Your task to perform on an android device: What's the weather going to be this weekend? Image 0: 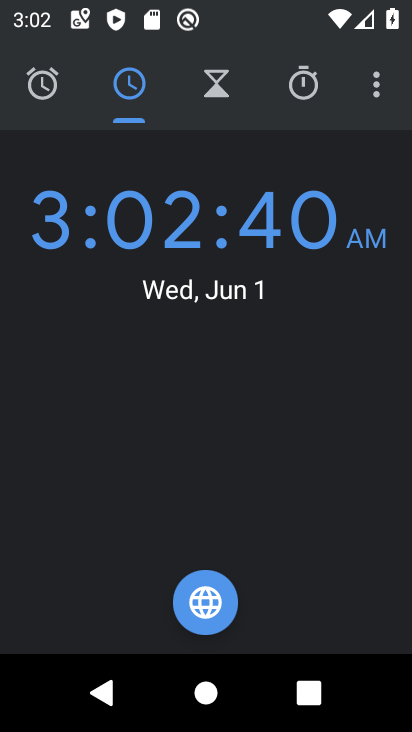
Step 0: press home button
Your task to perform on an android device: What's the weather going to be this weekend? Image 1: 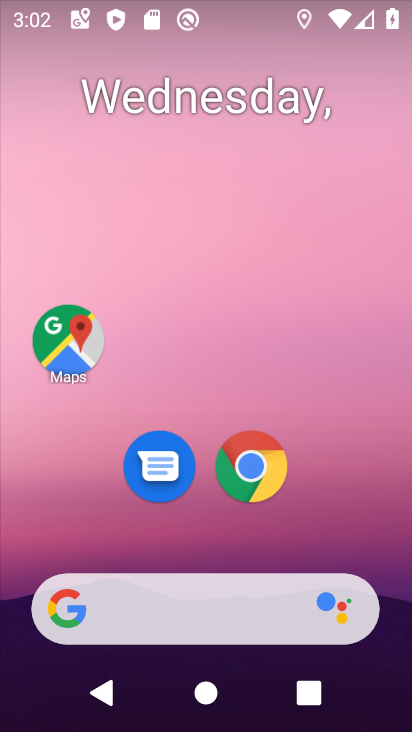
Step 1: click (220, 583)
Your task to perform on an android device: What's the weather going to be this weekend? Image 2: 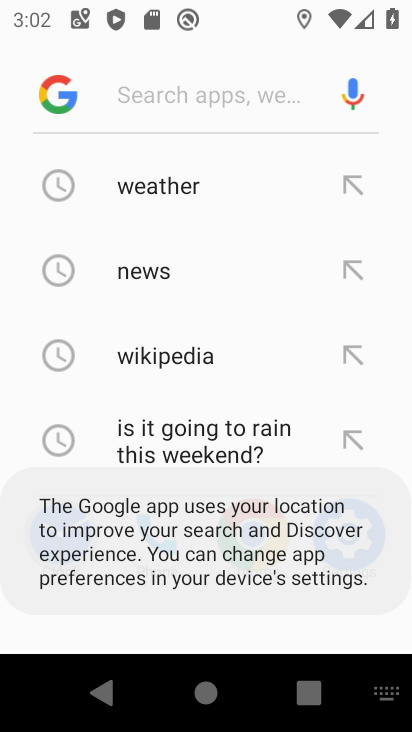
Step 2: click (155, 194)
Your task to perform on an android device: What's the weather going to be this weekend? Image 3: 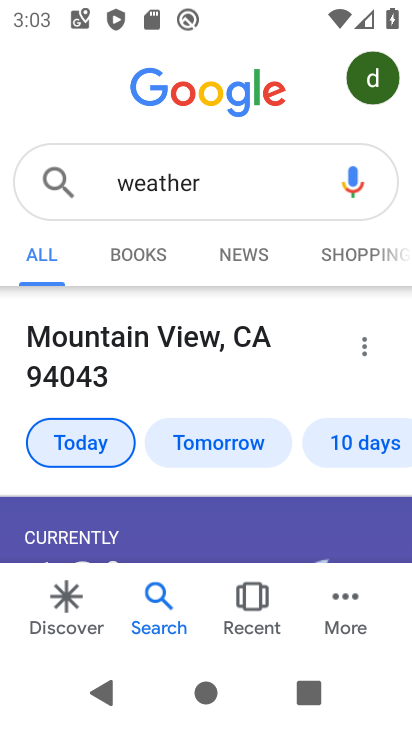
Step 3: click (331, 449)
Your task to perform on an android device: What's the weather going to be this weekend? Image 4: 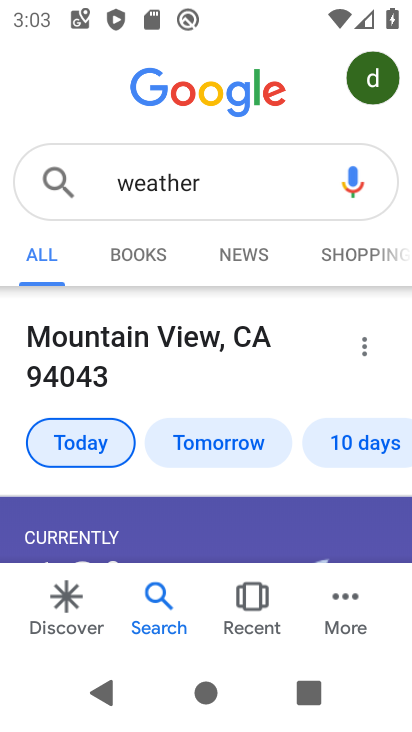
Step 4: click (325, 433)
Your task to perform on an android device: What's the weather going to be this weekend? Image 5: 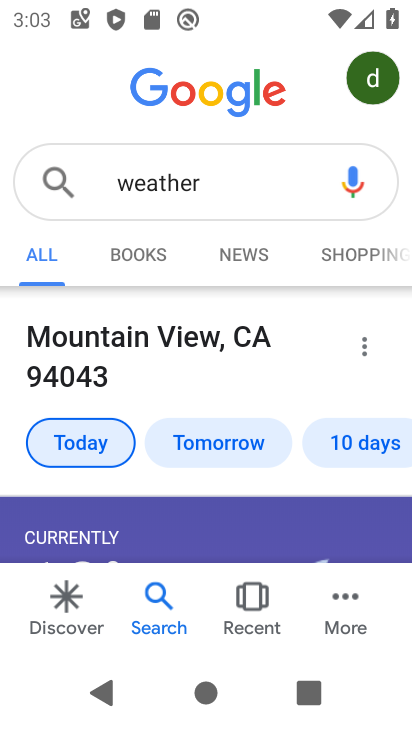
Step 5: task complete